Your task to perform on an android device: open app "LinkedIn" Image 0: 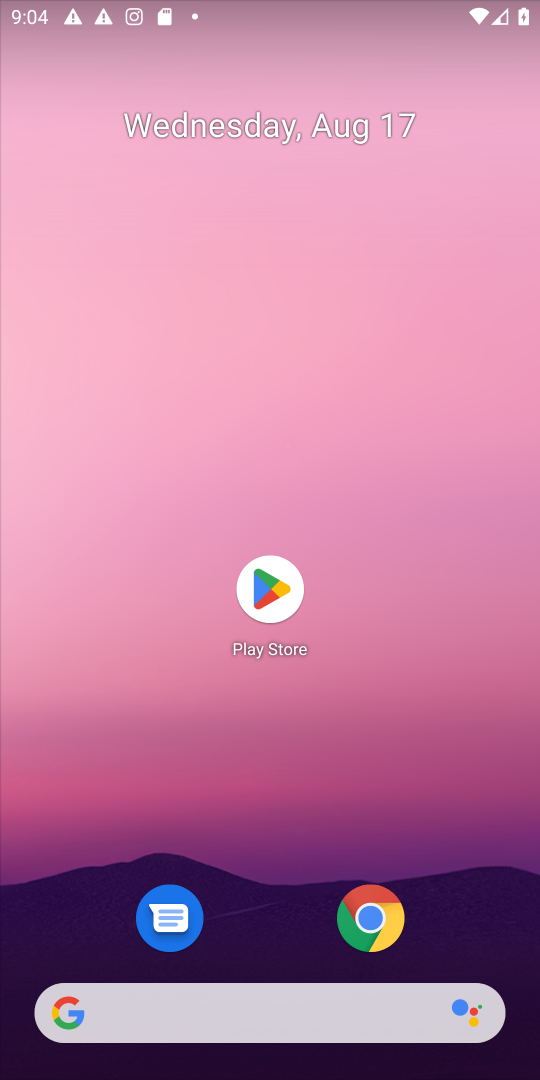
Step 0: click (273, 587)
Your task to perform on an android device: open app "LinkedIn" Image 1: 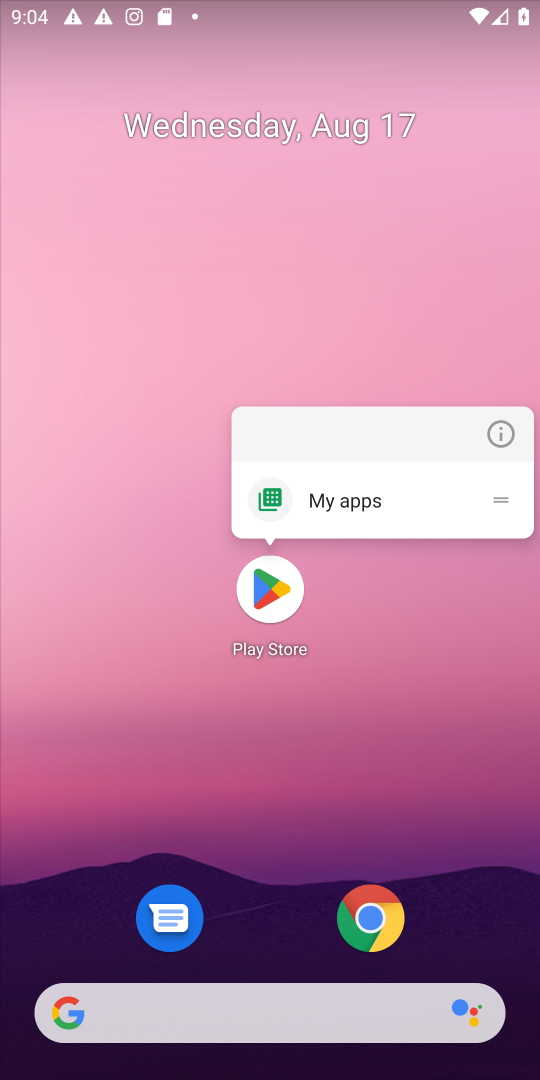
Step 1: click (273, 589)
Your task to perform on an android device: open app "LinkedIn" Image 2: 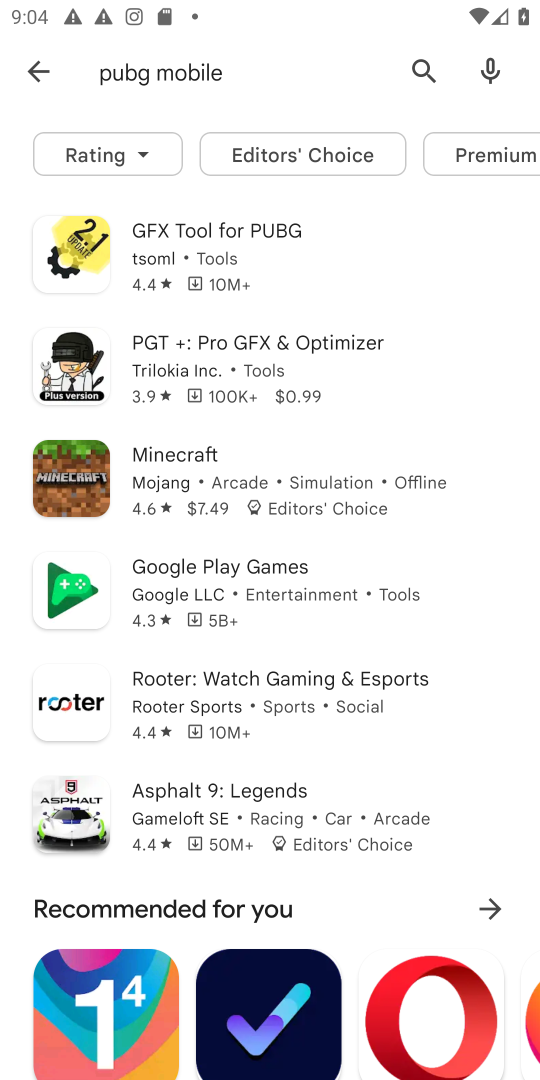
Step 2: click (416, 67)
Your task to perform on an android device: open app "LinkedIn" Image 3: 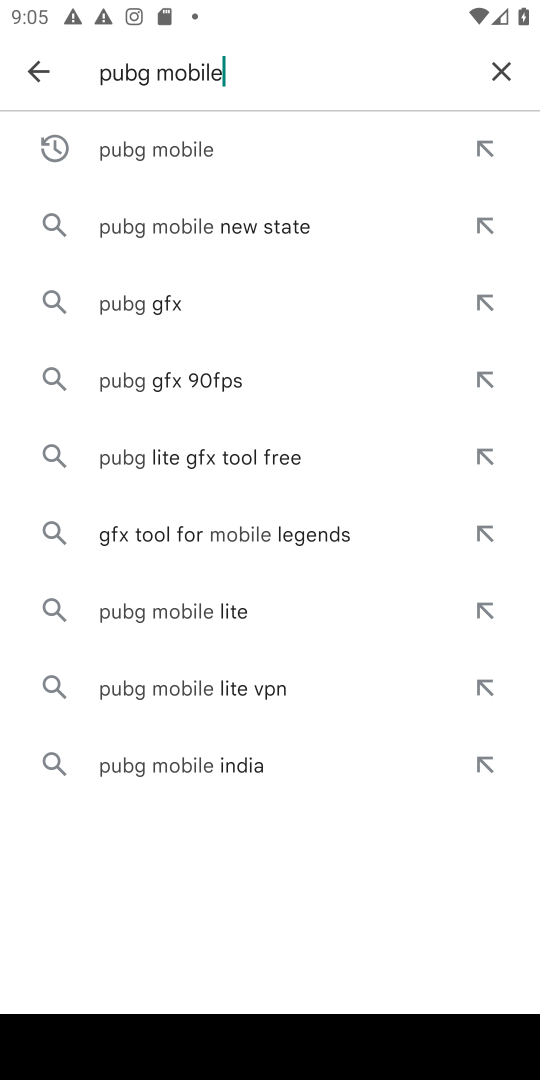
Step 3: click (501, 68)
Your task to perform on an android device: open app "LinkedIn" Image 4: 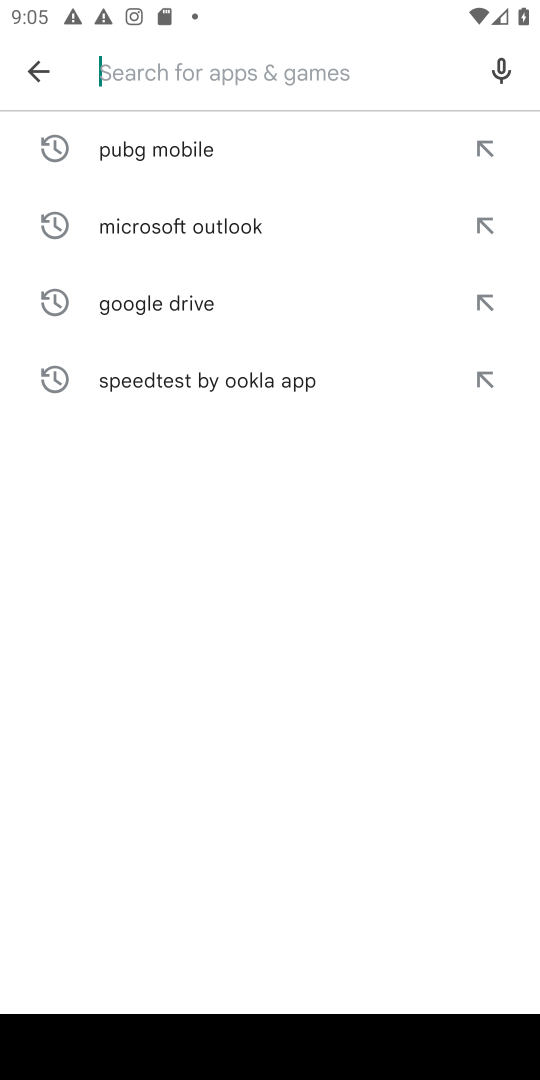
Step 4: type "LinkedIn"
Your task to perform on an android device: open app "LinkedIn" Image 5: 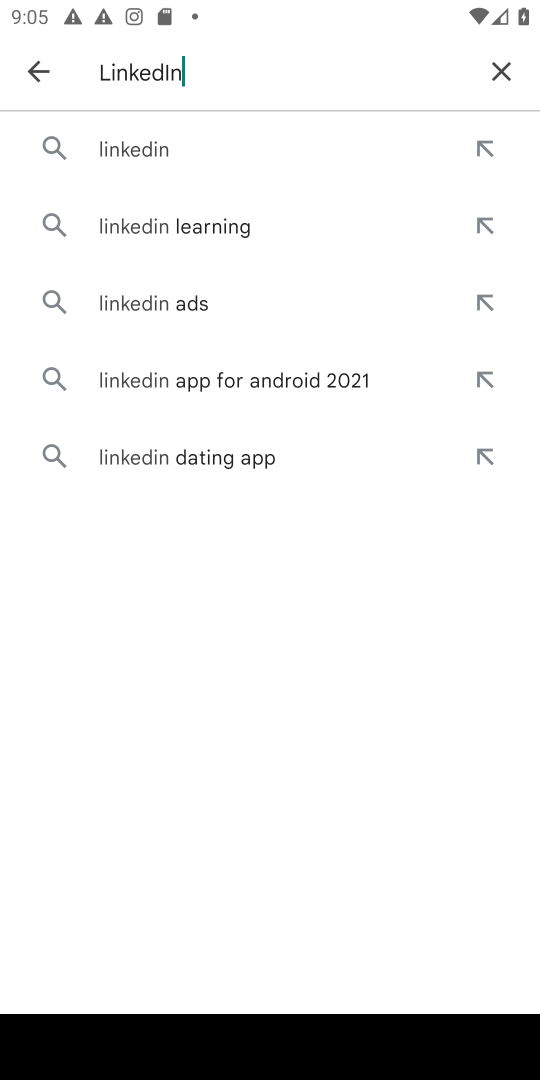
Step 5: click (152, 157)
Your task to perform on an android device: open app "LinkedIn" Image 6: 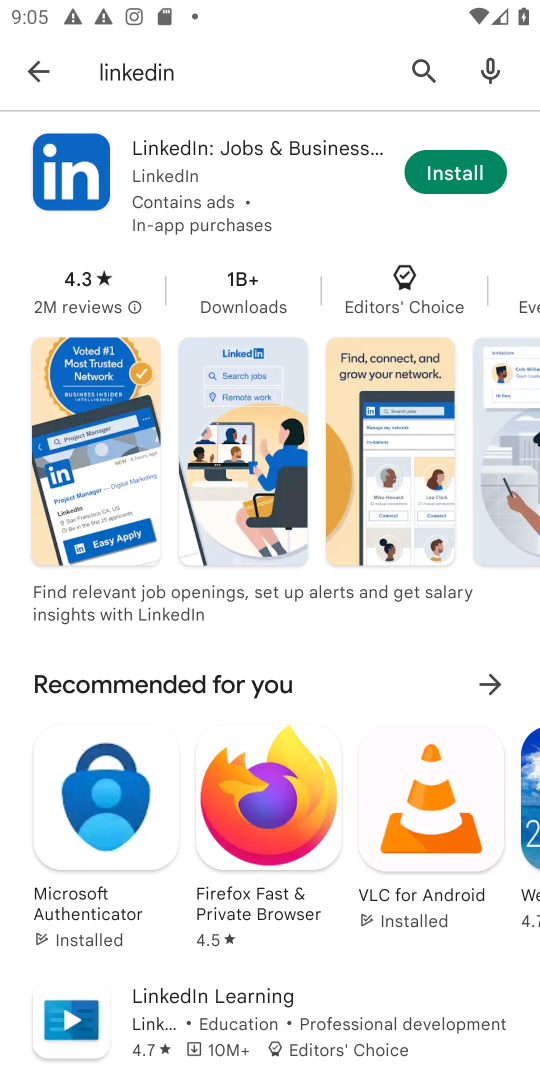
Step 6: task complete